Your task to perform on an android device: Open Google Chrome and open the bookmarks view Image 0: 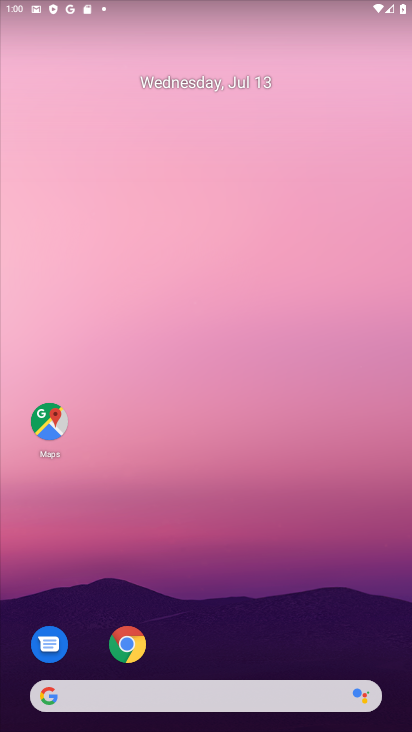
Step 0: drag from (274, 658) to (182, 134)
Your task to perform on an android device: Open Google Chrome and open the bookmarks view Image 1: 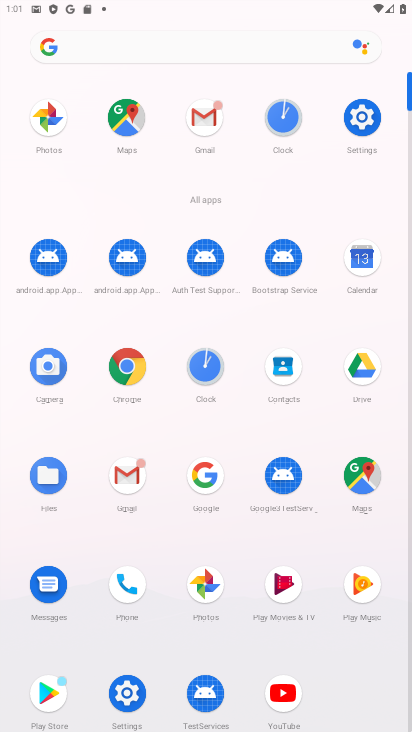
Step 1: click (131, 371)
Your task to perform on an android device: Open Google Chrome and open the bookmarks view Image 2: 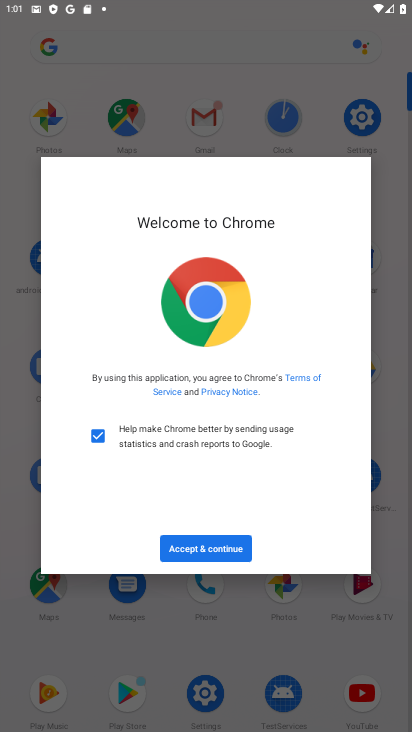
Step 2: click (211, 544)
Your task to perform on an android device: Open Google Chrome and open the bookmarks view Image 3: 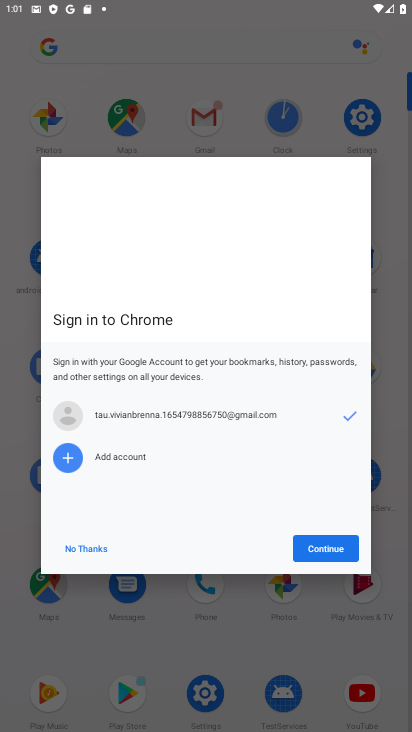
Step 3: click (319, 545)
Your task to perform on an android device: Open Google Chrome and open the bookmarks view Image 4: 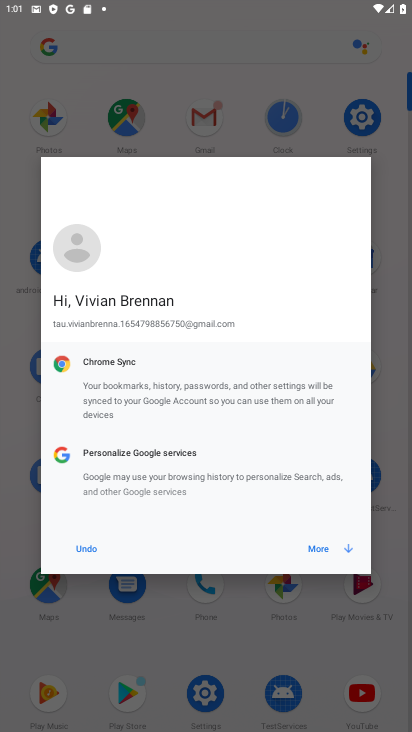
Step 4: click (319, 545)
Your task to perform on an android device: Open Google Chrome and open the bookmarks view Image 5: 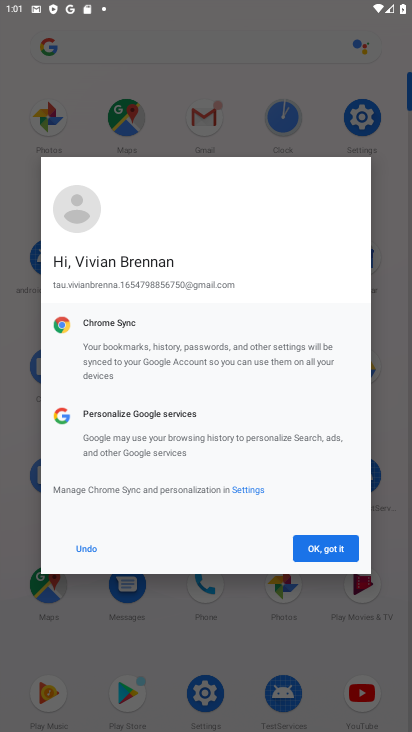
Step 5: click (324, 545)
Your task to perform on an android device: Open Google Chrome and open the bookmarks view Image 6: 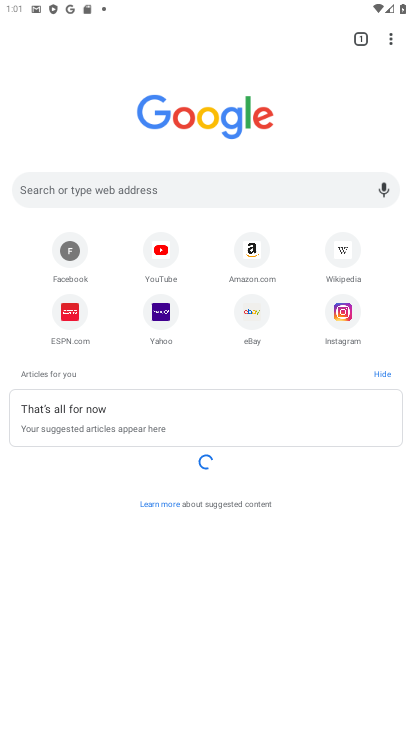
Step 6: click (392, 40)
Your task to perform on an android device: Open Google Chrome and open the bookmarks view Image 7: 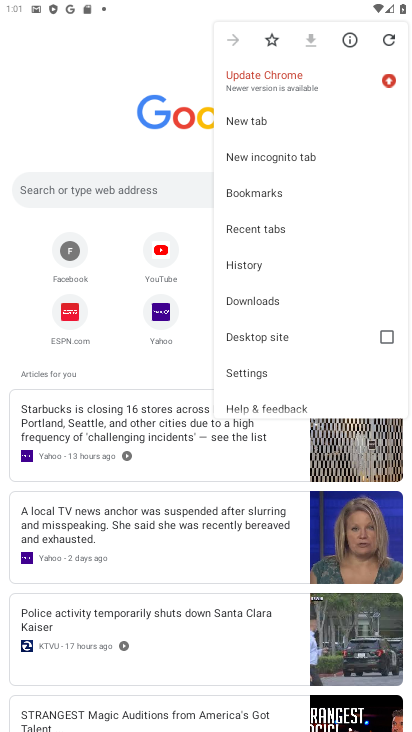
Step 7: click (333, 193)
Your task to perform on an android device: Open Google Chrome and open the bookmarks view Image 8: 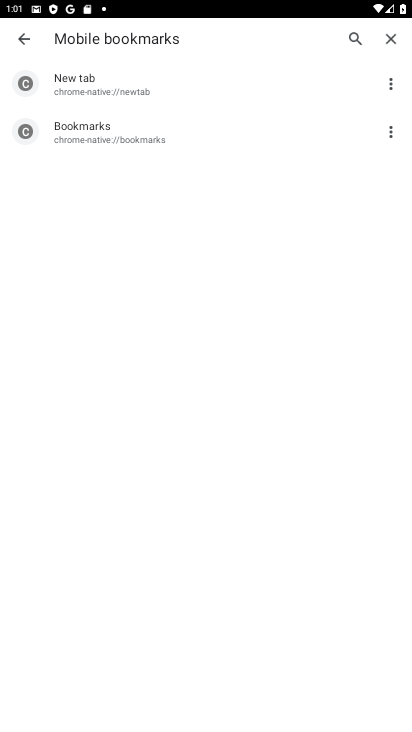
Step 8: task complete